Your task to perform on an android device: Search for vegetarian restaurants on Maps Image 0: 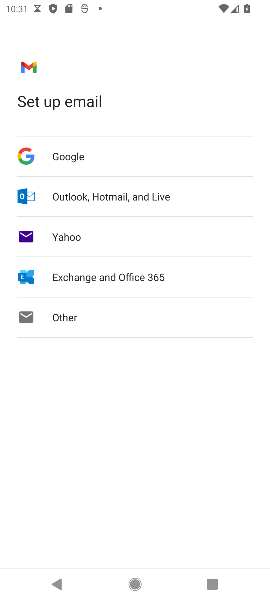
Step 0: press home button
Your task to perform on an android device: Search for vegetarian restaurants on Maps Image 1: 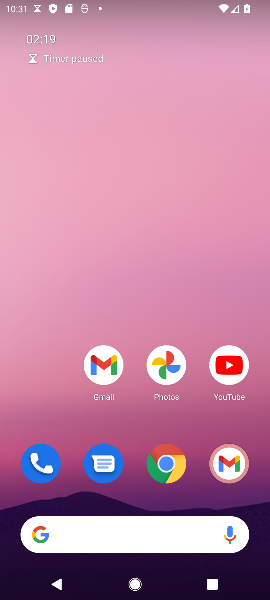
Step 1: drag from (4, 572) to (95, 137)
Your task to perform on an android device: Search for vegetarian restaurants on Maps Image 2: 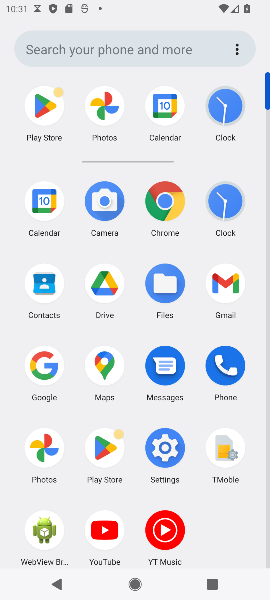
Step 2: click (102, 366)
Your task to perform on an android device: Search for vegetarian restaurants on Maps Image 3: 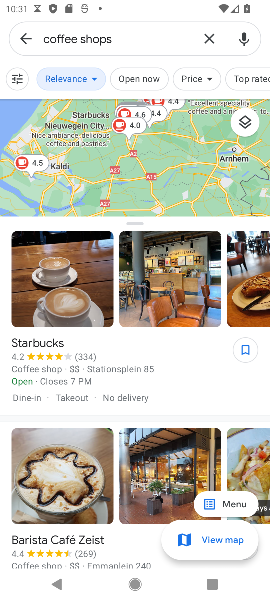
Step 3: click (27, 32)
Your task to perform on an android device: Search for vegetarian restaurants on Maps Image 4: 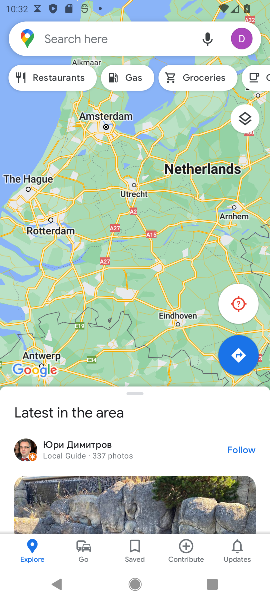
Step 4: click (31, 38)
Your task to perform on an android device: Search for vegetarian restaurants on Maps Image 5: 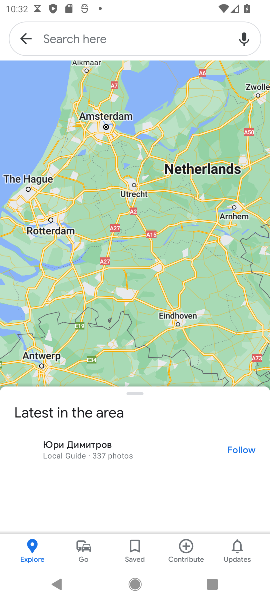
Step 5: click (53, 39)
Your task to perform on an android device: Search for vegetarian restaurants on Maps Image 6: 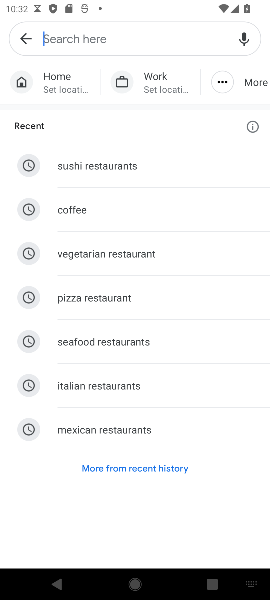
Step 6: type "vegetarian restaurant"
Your task to perform on an android device: Search for vegetarian restaurants on Maps Image 7: 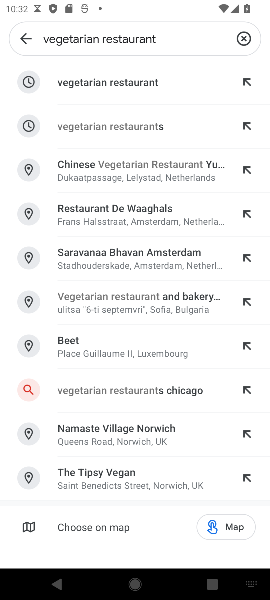
Step 7: click (139, 123)
Your task to perform on an android device: Search for vegetarian restaurants on Maps Image 8: 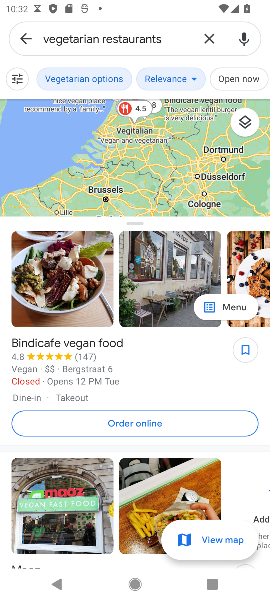
Step 8: task complete